Your task to perform on an android device: Open accessibility settings Image 0: 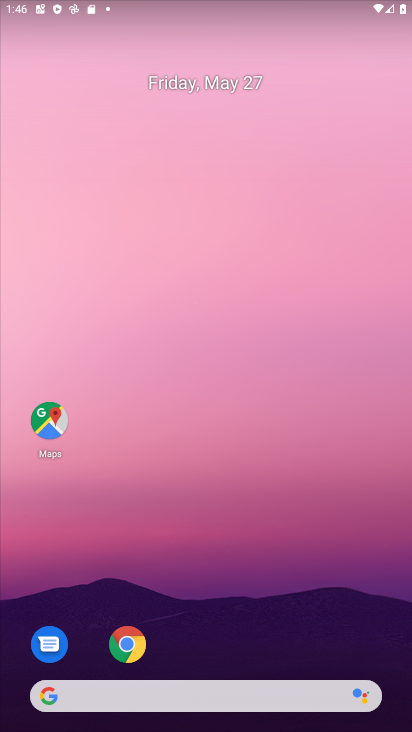
Step 0: drag from (339, 638) to (264, 159)
Your task to perform on an android device: Open accessibility settings Image 1: 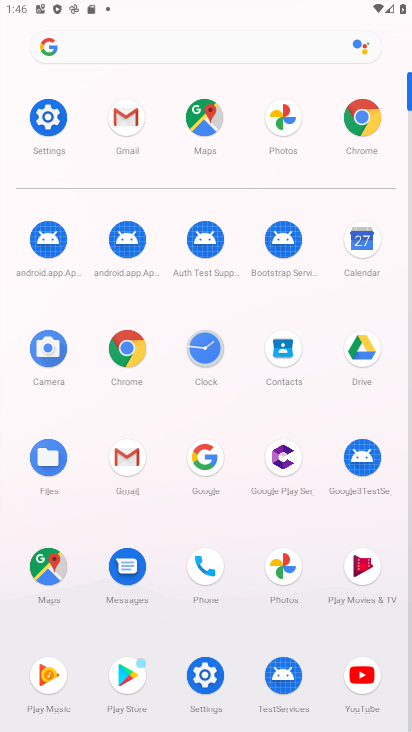
Step 1: click (212, 678)
Your task to perform on an android device: Open accessibility settings Image 2: 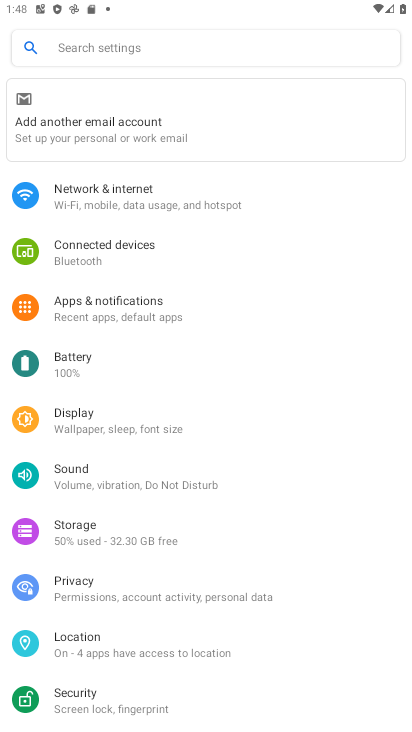
Step 2: drag from (145, 629) to (146, 150)
Your task to perform on an android device: Open accessibility settings Image 3: 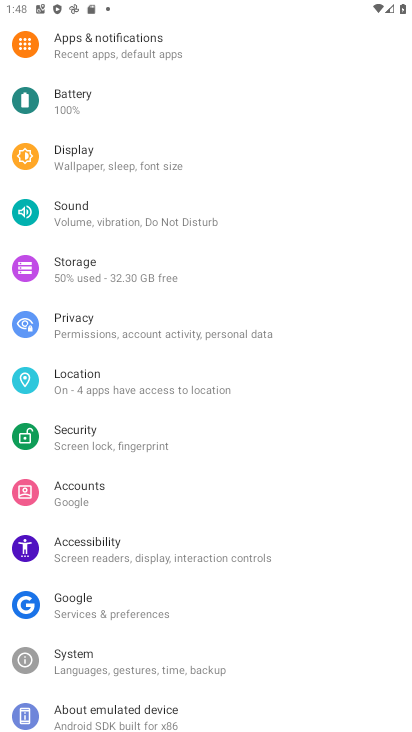
Step 3: click (104, 533)
Your task to perform on an android device: Open accessibility settings Image 4: 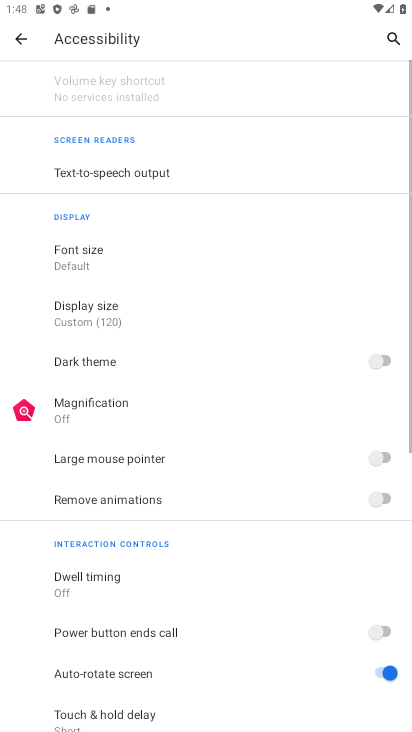
Step 4: task complete